Your task to perform on an android device: open app "The Home Depot" Image 0: 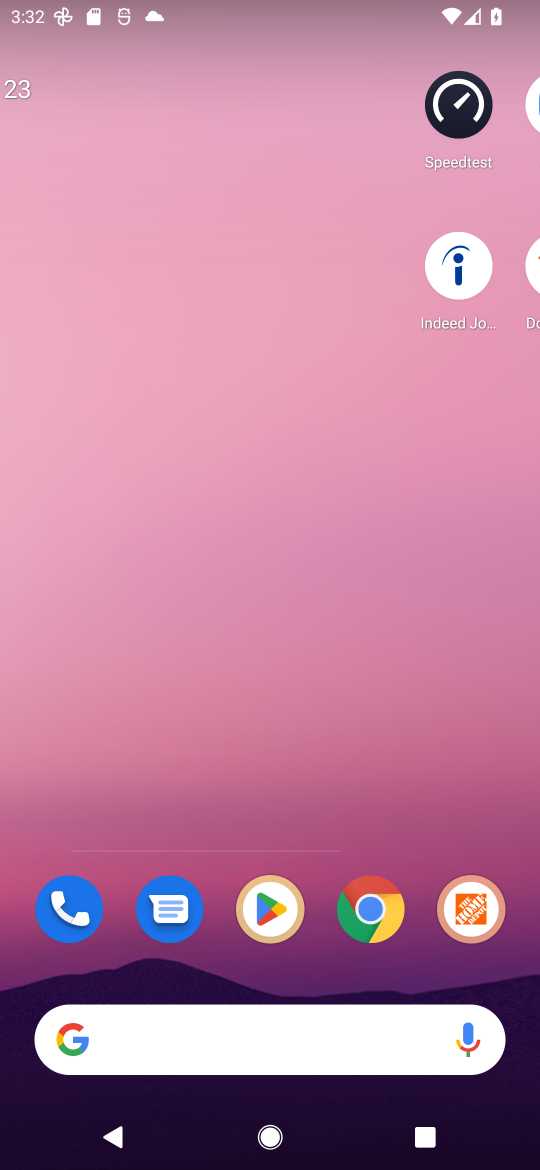
Step 0: press home button
Your task to perform on an android device: open app "The Home Depot" Image 1: 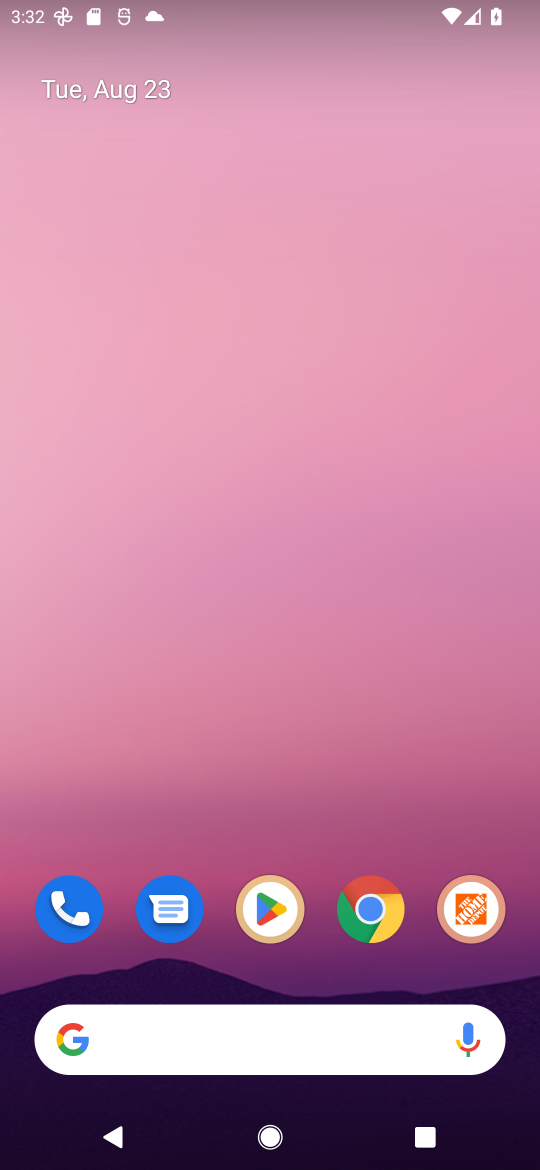
Step 1: click (260, 895)
Your task to perform on an android device: open app "The Home Depot" Image 2: 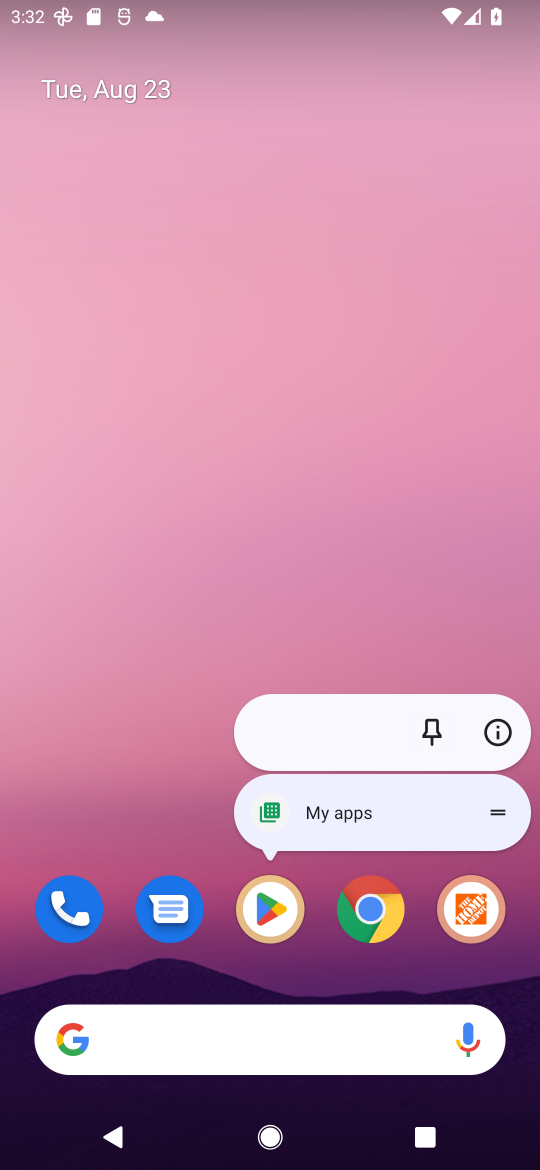
Step 2: click (260, 894)
Your task to perform on an android device: open app "The Home Depot" Image 3: 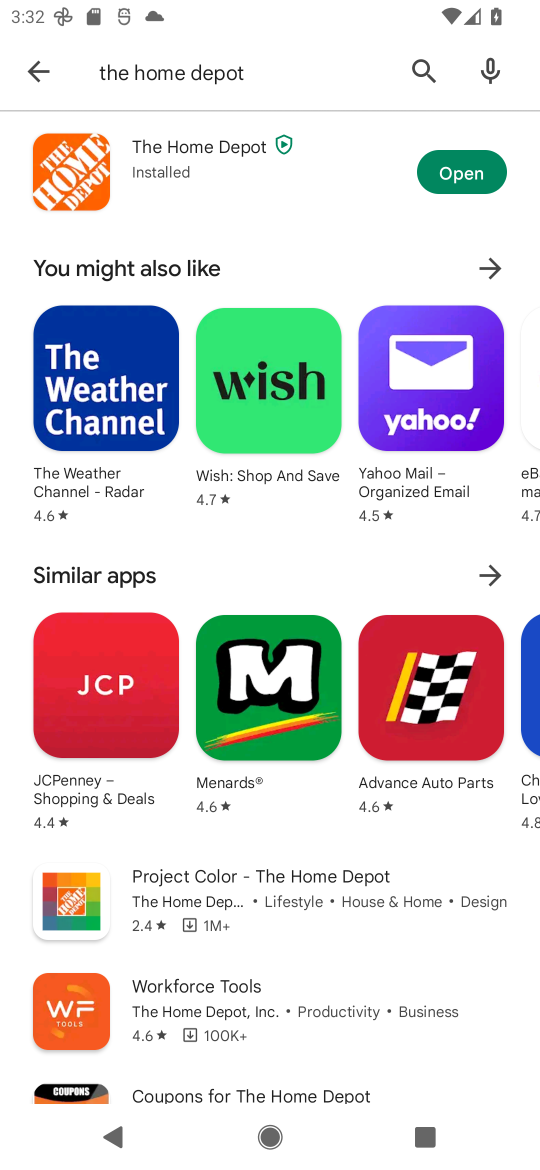
Step 3: click (409, 67)
Your task to perform on an android device: open app "The Home Depot" Image 4: 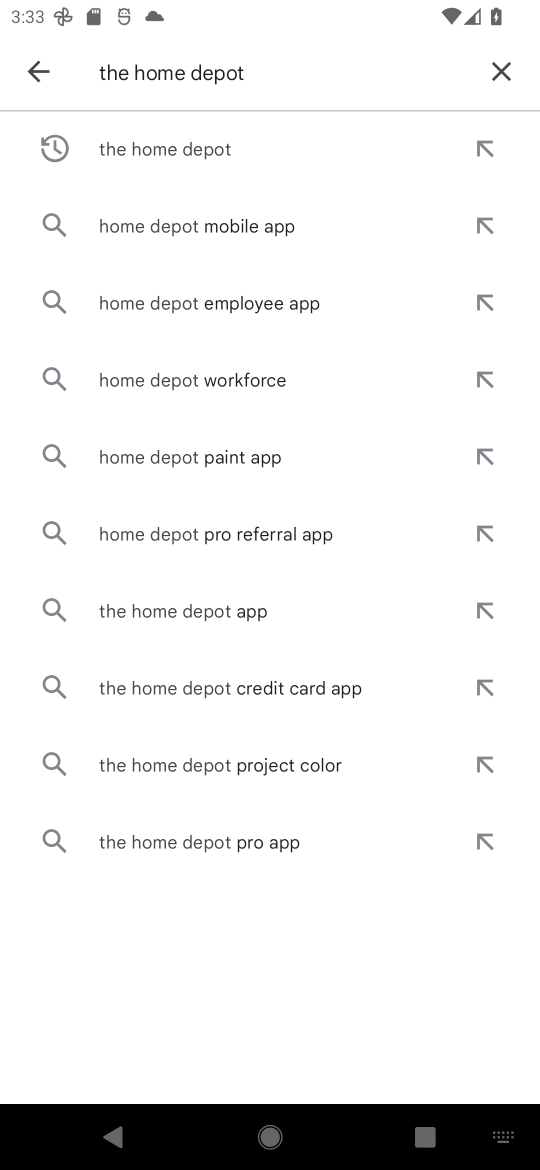
Step 4: click (241, 146)
Your task to perform on an android device: open app "The Home Depot" Image 5: 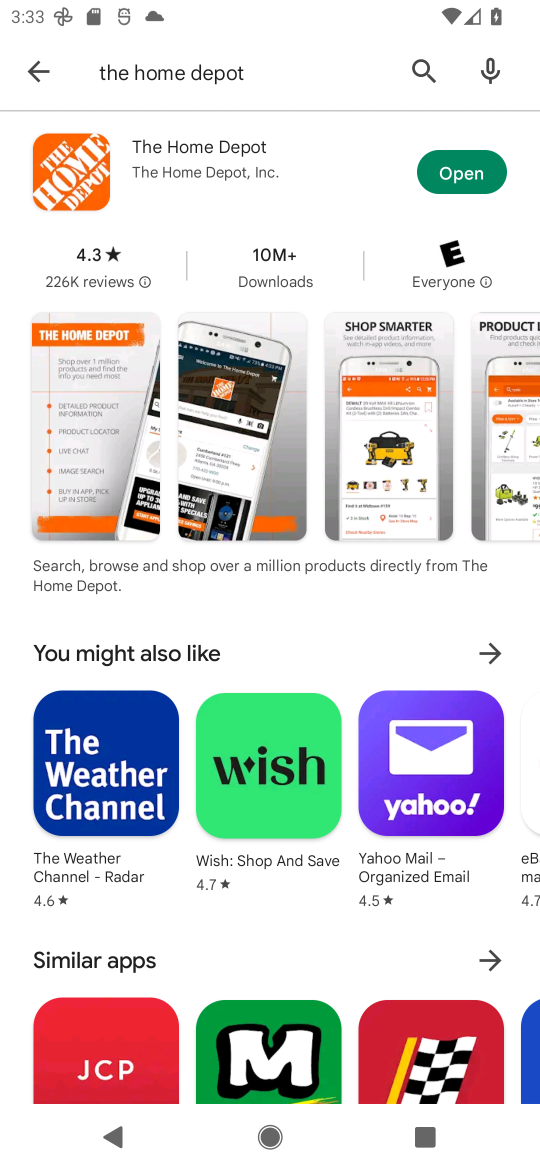
Step 5: click (450, 172)
Your task to perform on an android device: open app "The Home Depot" Image 6: 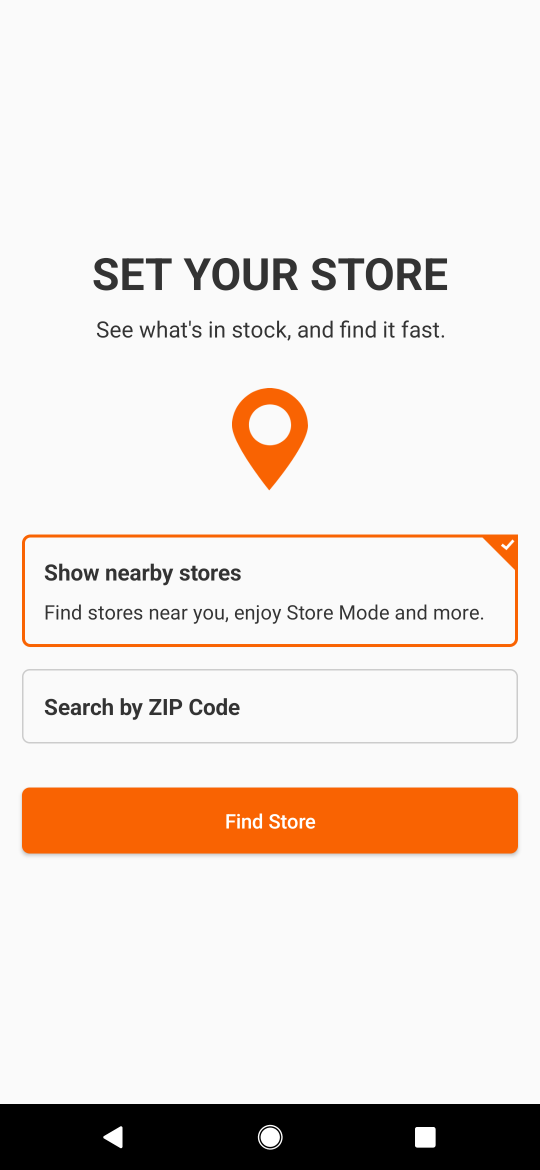
Step 6: click (291, 837)
Your task to perform on an android device: open app "The Home Depot" Image 7: 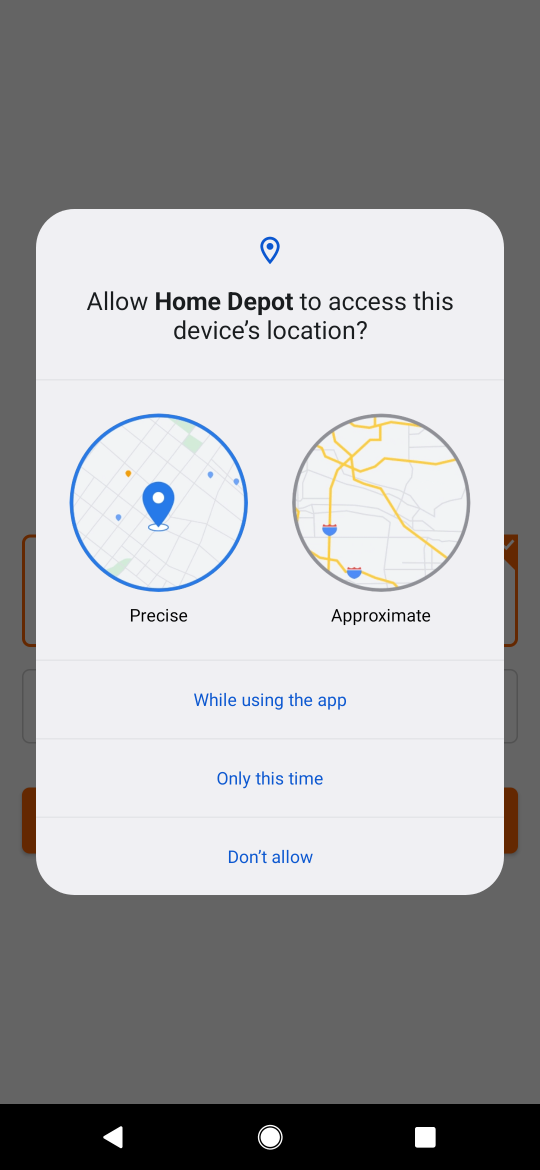
Step 7: click (166, 522)
Your task to perform on an android device: open app "The Home Depot" Image 8: 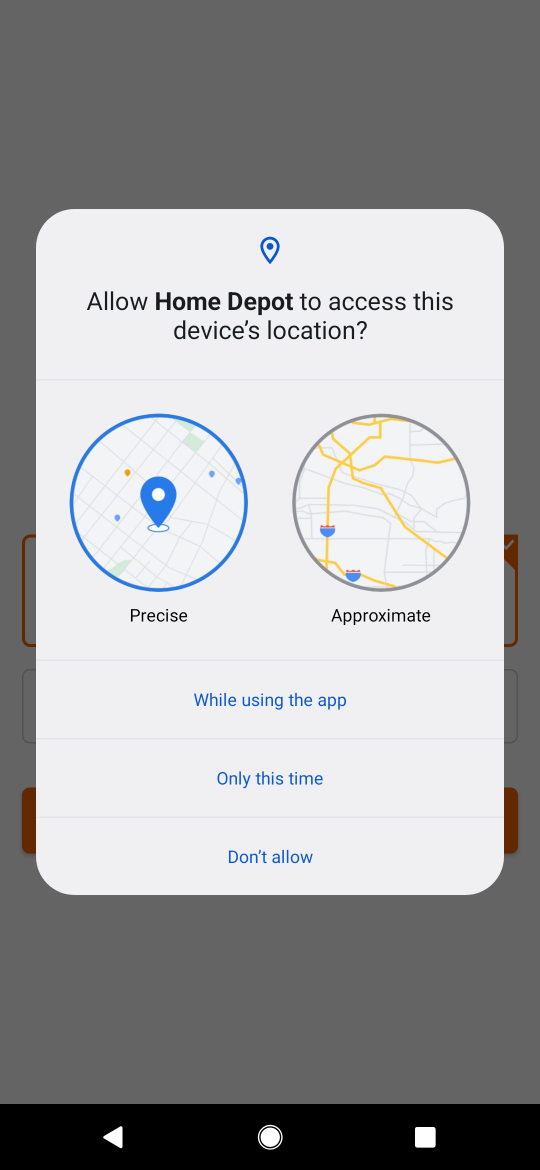
Step 8: click (317, 703)
Your task to perform on an android device: open app "The Home Depot" Image 9: 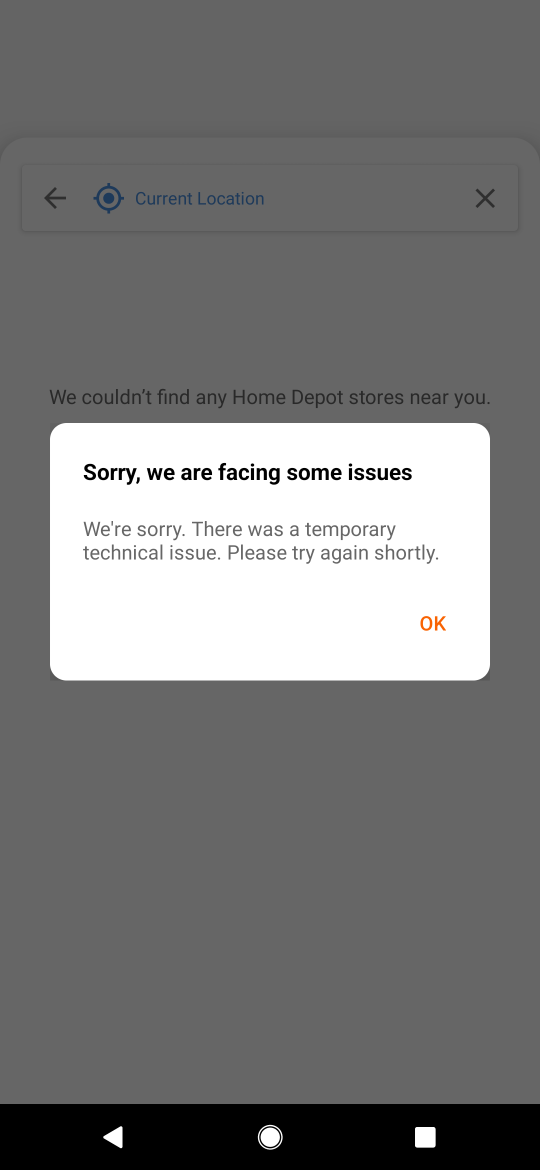
Step 9: click (432, 639)
Your task to perform on an android device: open app "The Home Depot" Image 10: 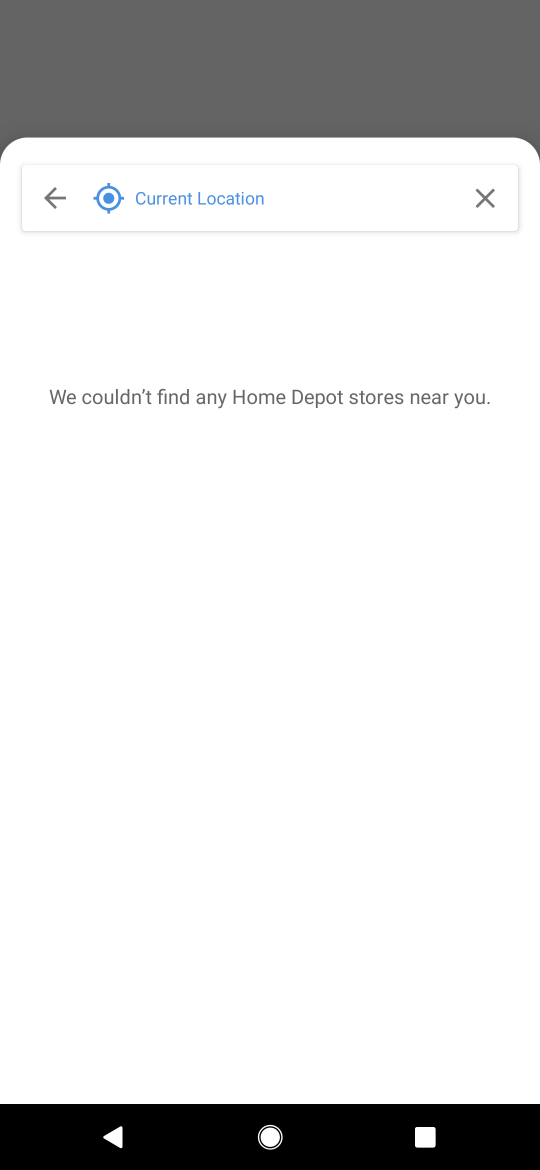
Step 10: click (197, 203)
Your task to perform on an android device: open app "The Home Depot" Image 11: 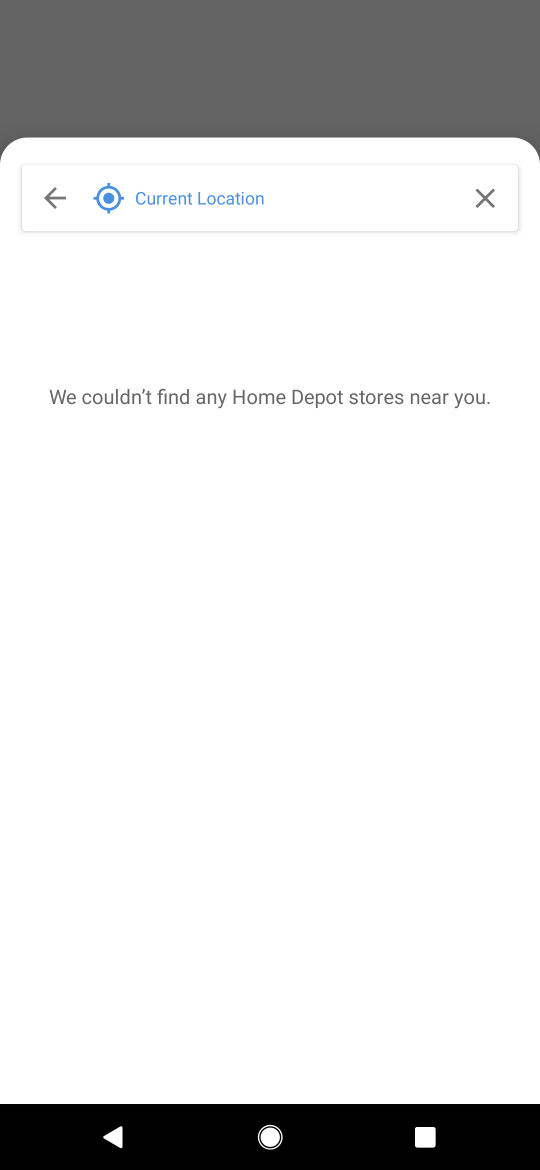
Step 11: task complete